Your task to perform on an android device: Open sound settings Image 0: 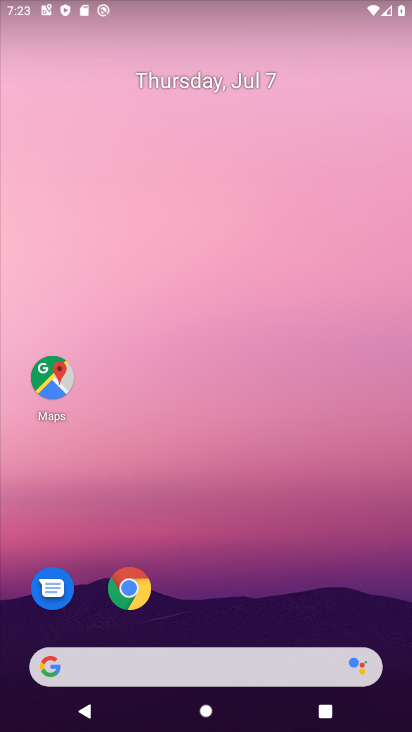
Step 0: drag from (309, 613) to (335, 129)
Your task to perform on an android device: Open sound settings Image 1: 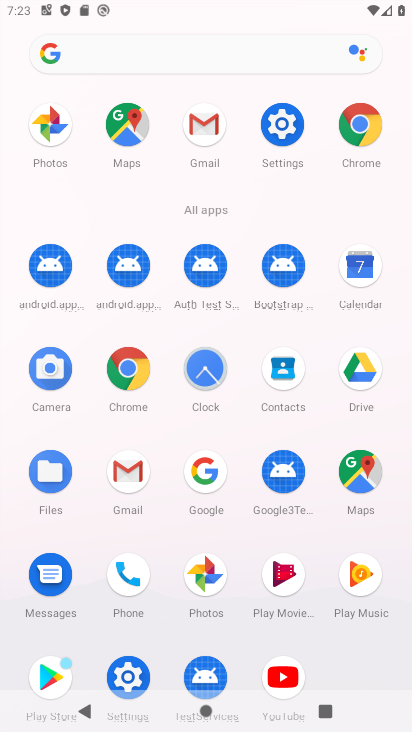
Step 1: click (282, 120)
Your task to perform on an android device: Open sound settings Image 2: 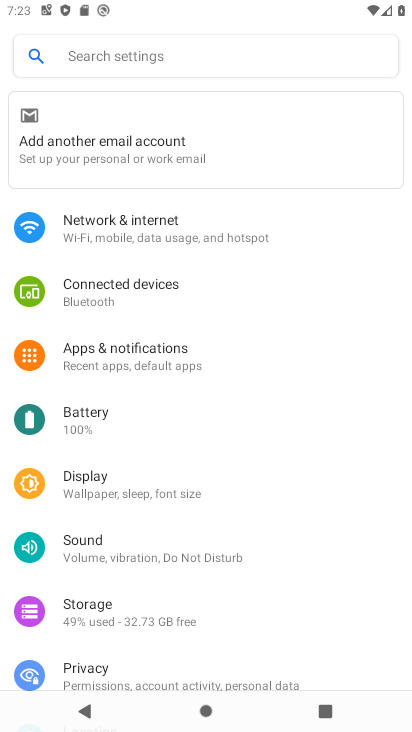
Step 2: click (172, 551)
Your task to perform on an android device: Open sound settings Image 3: 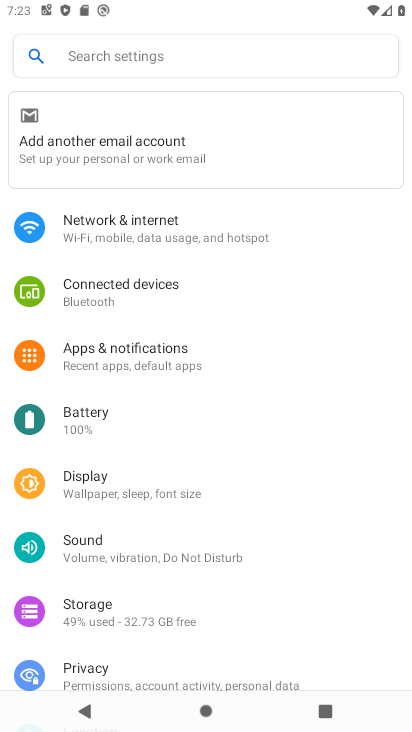
Step 3: click (172, 558)
Your task to perform on an android device: Open sound settings Image 4: 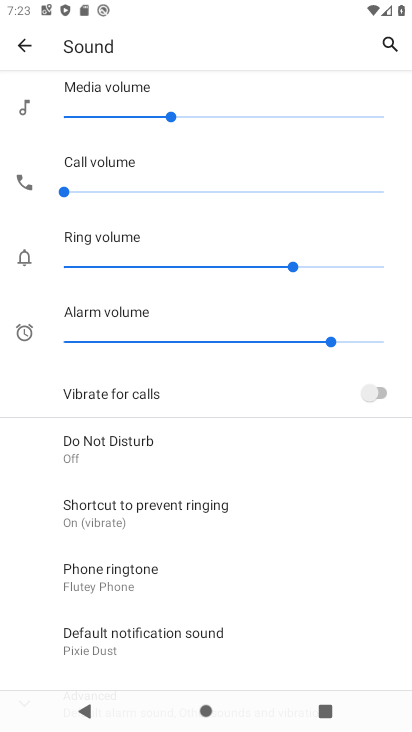
Step 4: task complete